Your task to perform on an android device: toggle sleep mode Image 0: 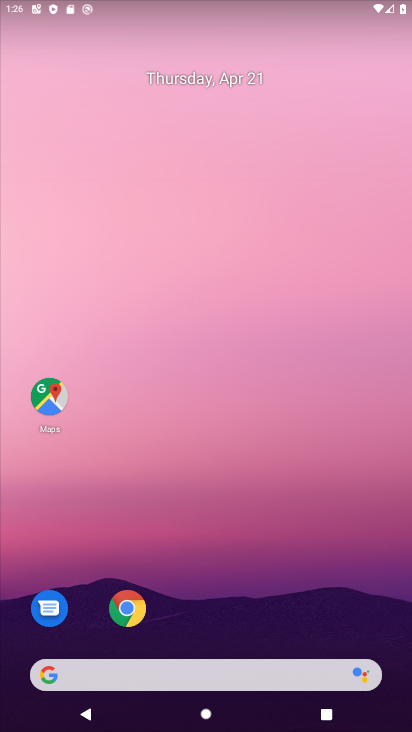
Step 0: drag from (343, 486) to (386, 74)
Your task to perform on an android device: toggle sleep mode Image 1: 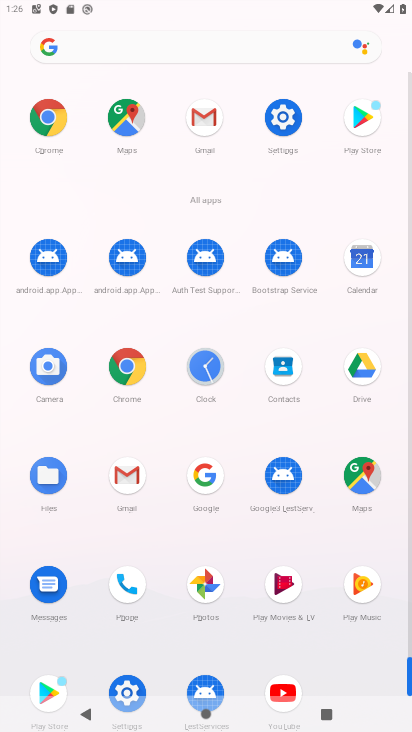
Step 1: click (277, 116)
Your task to perform on an android device: toggle sleep mode Image 2: 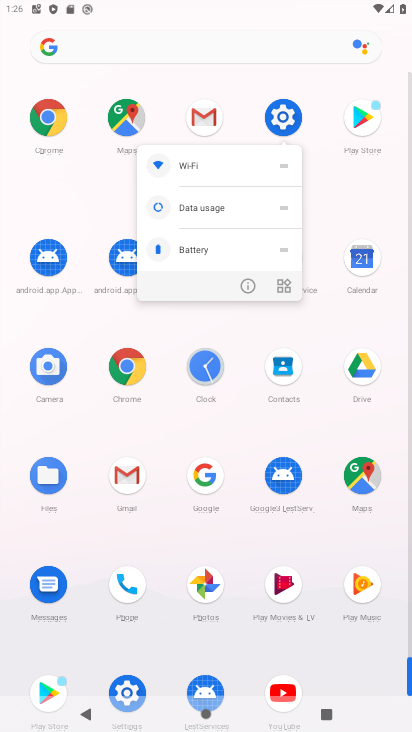
Step 2: click (277, 115)
Your task to perform on an android device: toggle sleep mode Image 3: 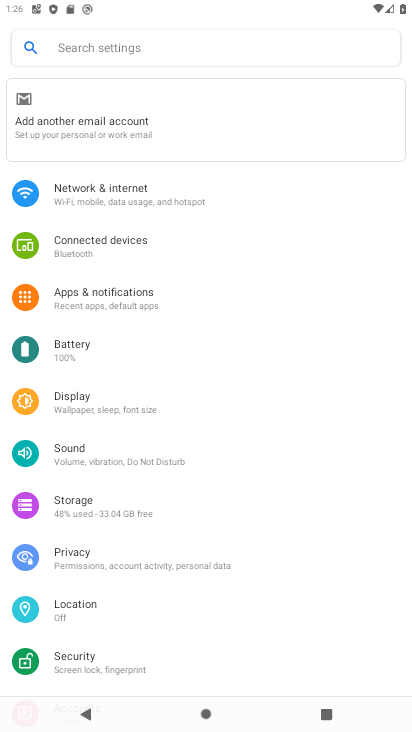
Step 3: click (117, 414)
Your task to perform on an android device: toggle sleep mode Image 4: 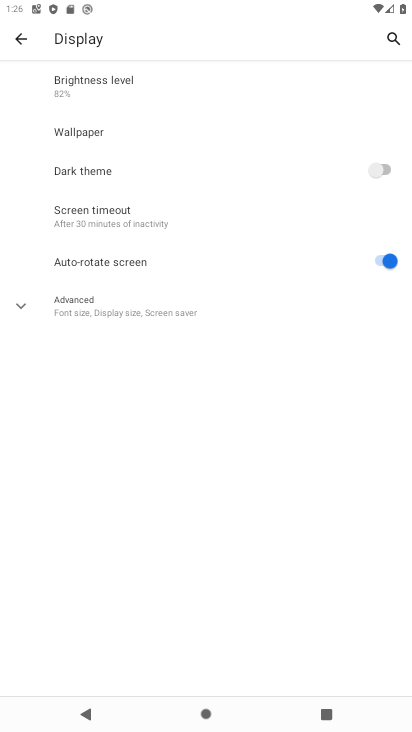
Step 4: click (116, 222)
Your task to perform on an android device: toggle sleep mode Image 5: 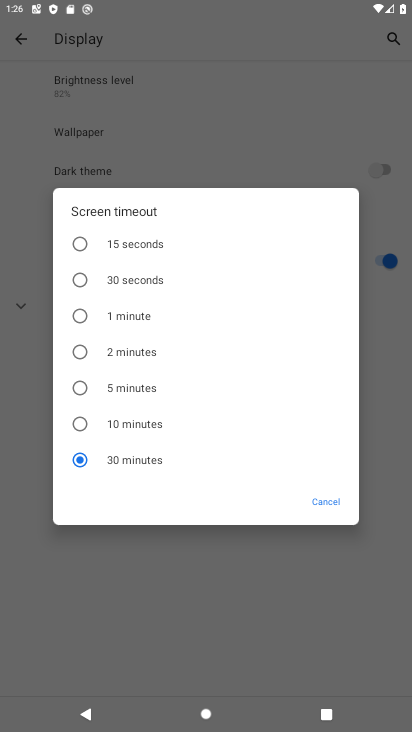
Step 5: click (123, 348)
Your task to perform on an android device: toggle sleep mode Image 6: 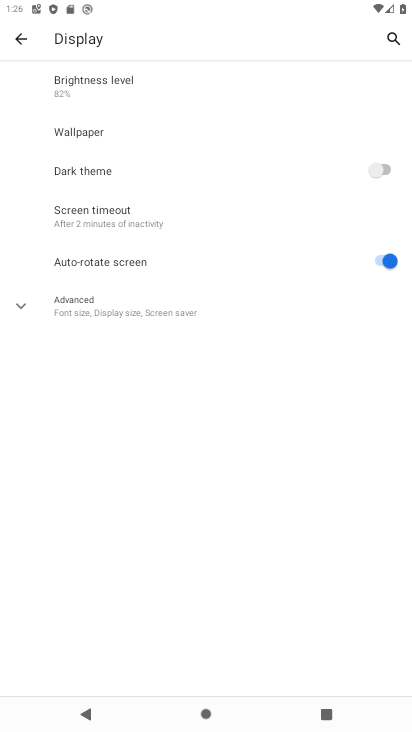
Step 6: task complete